Your task to perform on an android device: Open eBay Image 0: 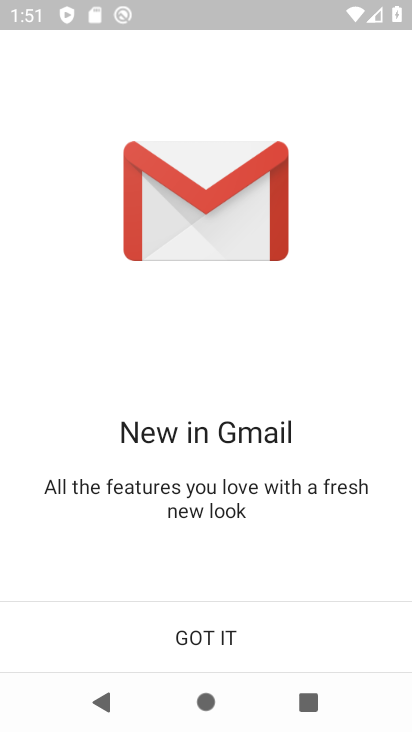
Step 0: press back button
Your task to perform on an android device: Open eBay Image 1: 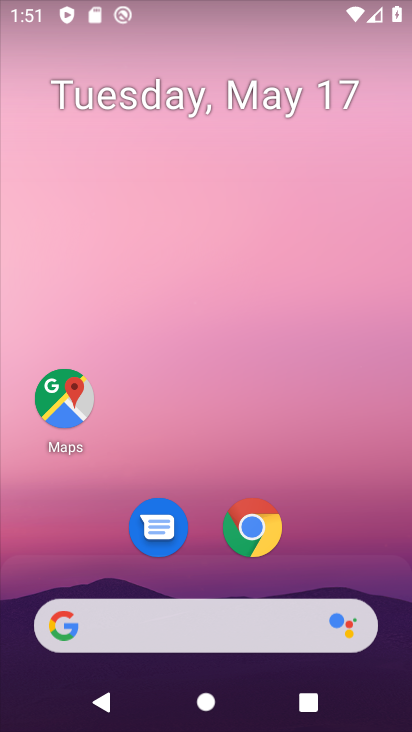
Step 1: drag from (349, 565) to (281, 95)
Your task to perform on an android device: Open eBay Image 2: 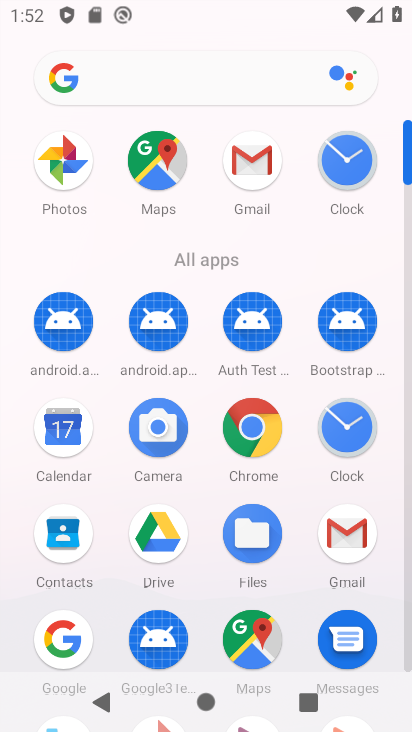
Step 2: drag from (297, 577) to (309, 304)
Your task to perform on an android device: Open eBay Image 3: 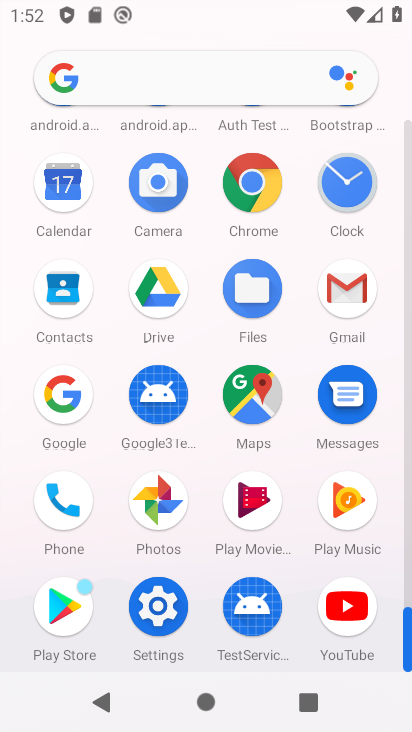
Step 3: click (57, 391)
Your task to perform on an android device: Open eBay Image 4: 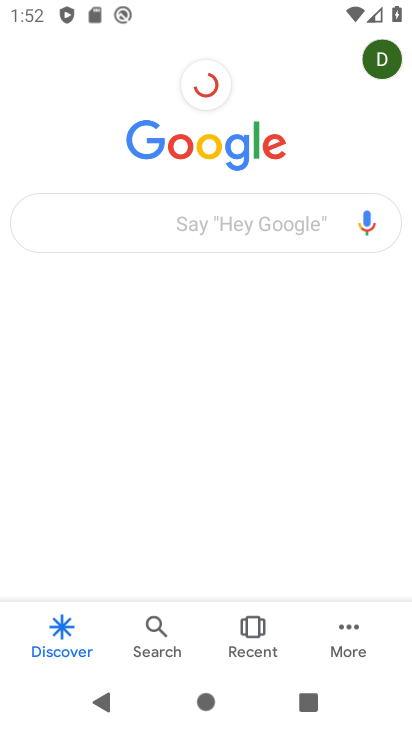
Step 4: click (205, 228)
Your task to perform on an android device: Open eBay Image 5: 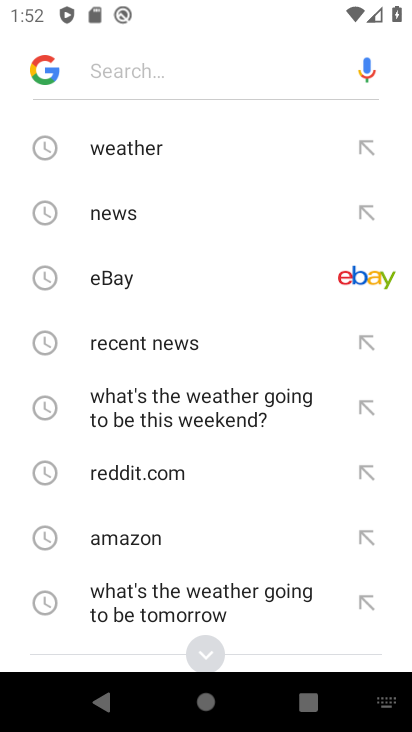
Step 5: click (100, 280)
Your task to perform on an android device: Open eBay Image 6: 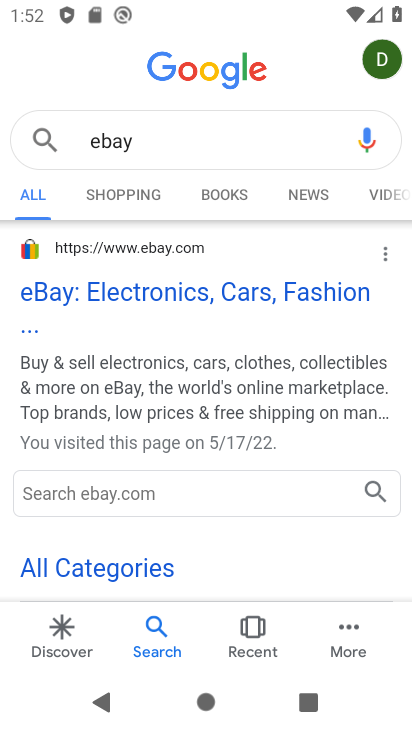
Step 6: click (123, 289)
Your task to perform on an android device: Open eBay Image 7: 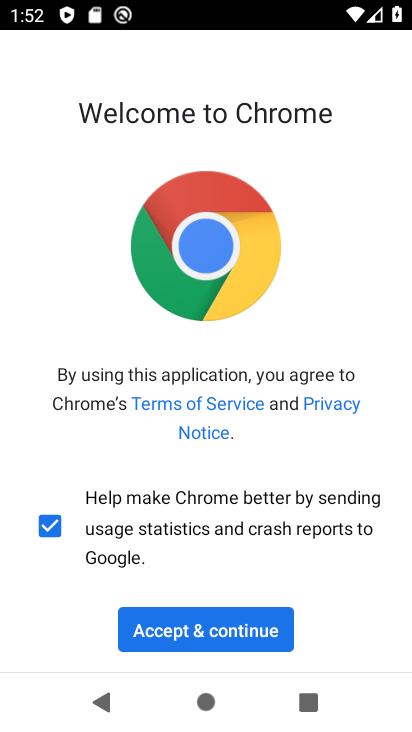
Step 7: click (201, 636)
Your task to perform on an android device: Open eBay Image 8: 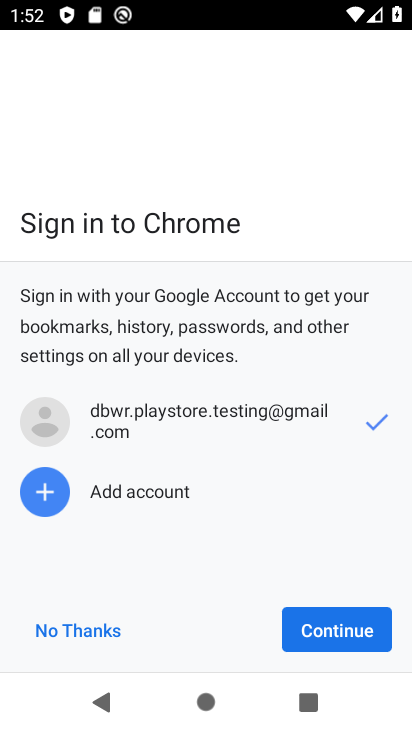
Step 8: click (346, 636)
Your task to perform on an android device: Open eBay Image 9: 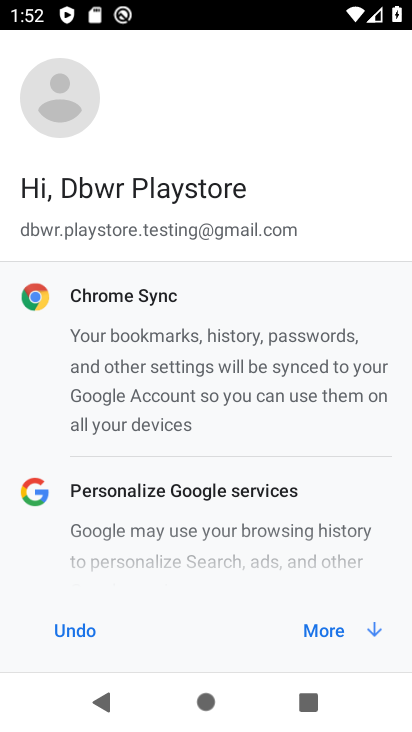
Step 9: click (345, 635)
Your task to perform on an android device: Open eBay Image 10: 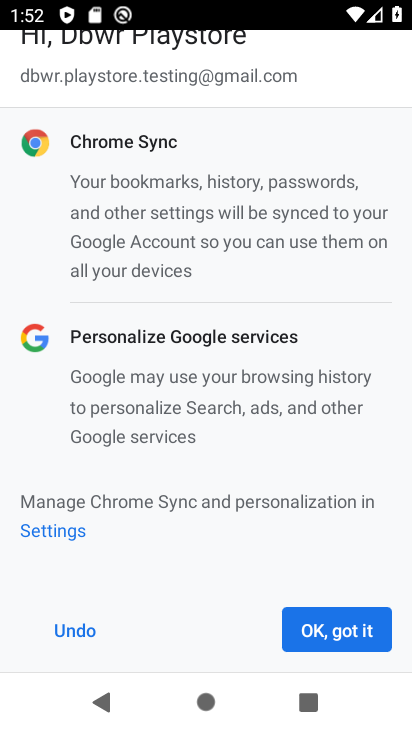
Step 10: click (345, 635)
Your task to perform on an android device: Open eBay Image 11: 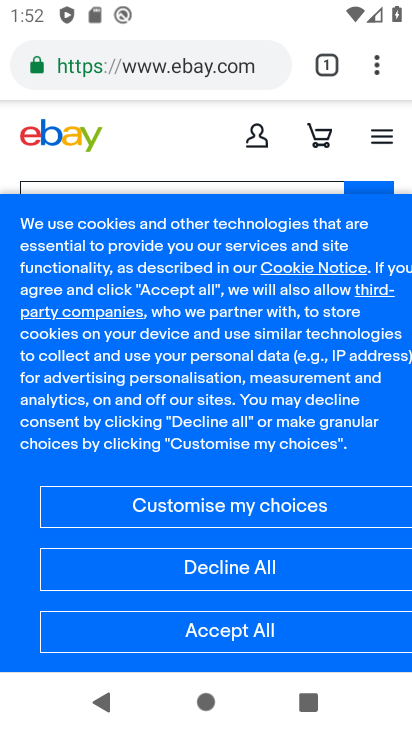
Step 11: task complete